Your task to perform on an android device: toggle show notifications on the lock screen Image 0: 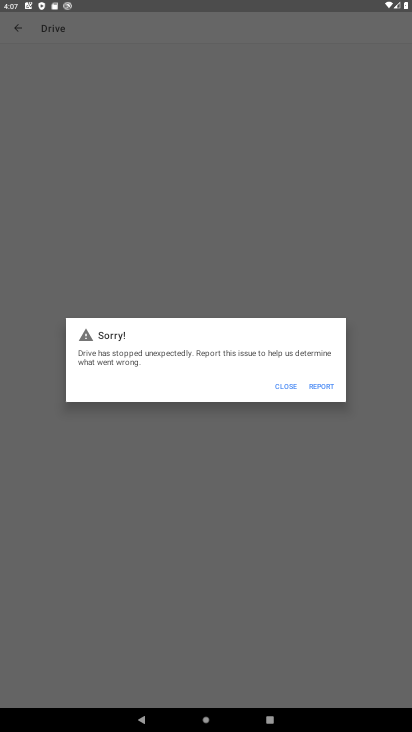
Step 0: press home button
Your task to perform on an android device: toggle show notifications on the lock screen Image 1: 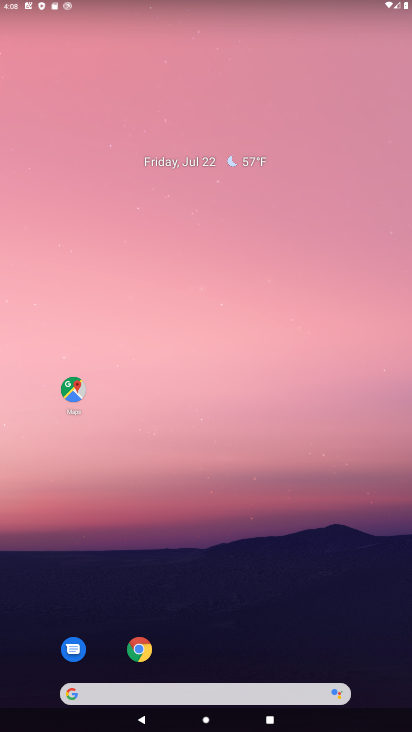
Step 1: drag from (79, 644) to (220, 335)
Your task to perform on an android device: toggle show notifications on the lock screen Image 2: 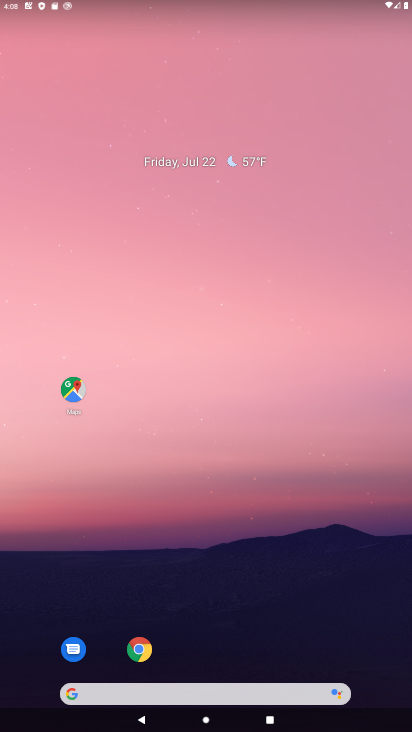
Step 2: drag from (25, 689) to (232, 199)
Your task to perform on an android device: toggle show notifications on the lock screen Image 3: 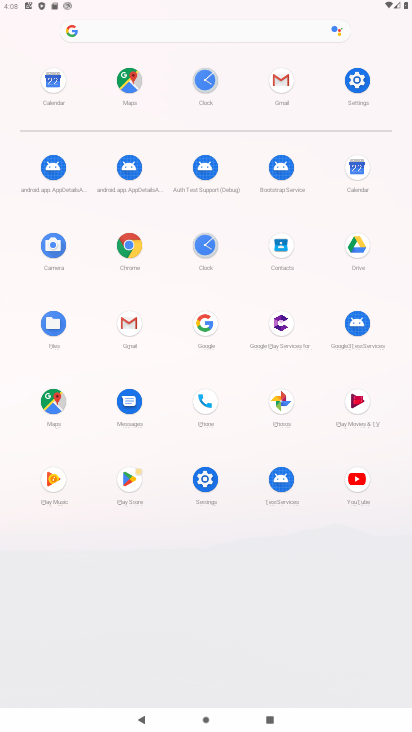
Step 3: click (207, 476)
Your task to perform on an android device: toggle show notifications on the lock screen Image 4: 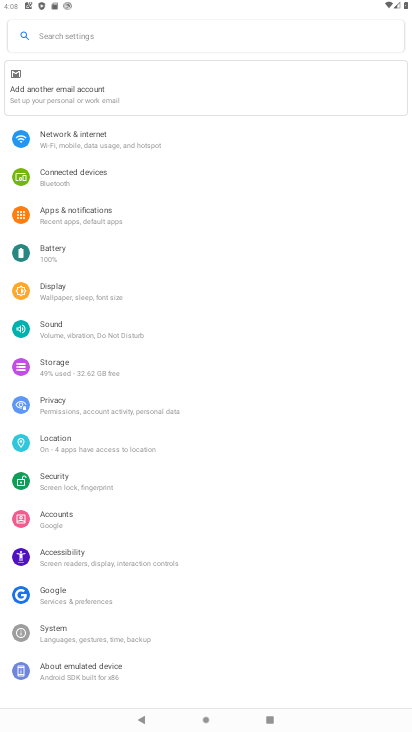
Step 4: click (62, 215)
Your task to perform on an android device: toggle show notifications on the lock screen Image 5: 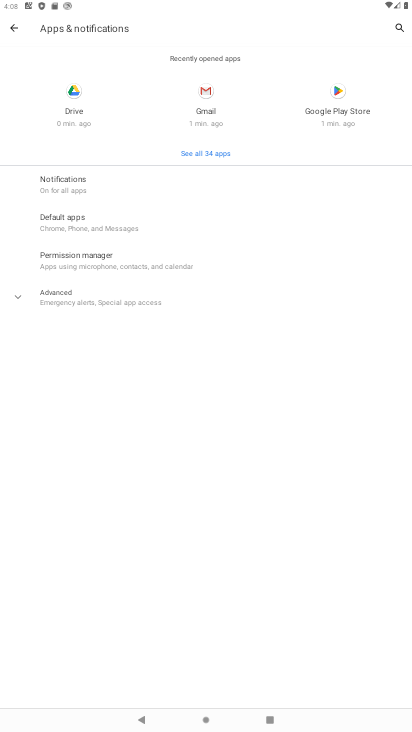
Step 5: click (67, 177)
Your task to perform on an android device: toggle show notifications on the lock screen Image 6: 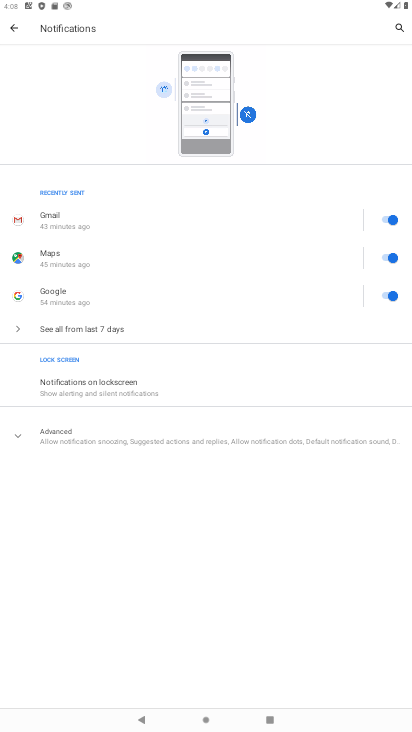
Step 6: click (64, 436)
Your task to perform on an android device: toggle show notifications on the lock screen Image 7: 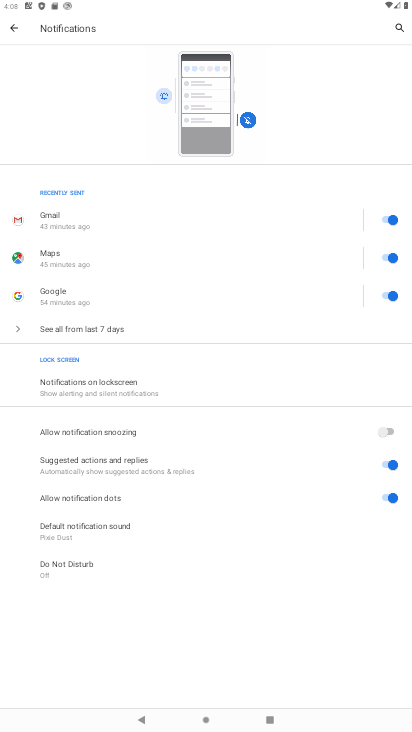
Step 7: click (102, 392)
Your task to perform on an android device: toggle show notifications on the lock screen Image 8: 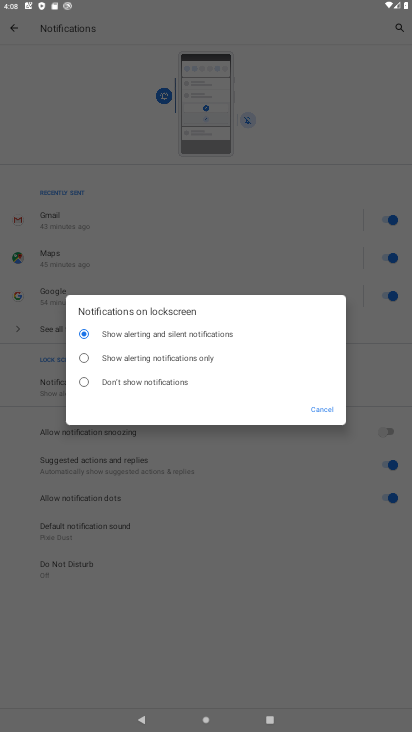
Step 8: task complete